Your task to perform on an android device: Do I have any events tomorrow? Image 0: 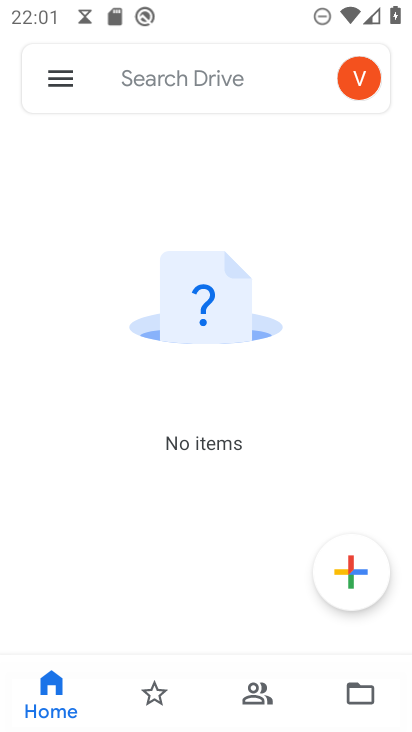
Step 0: press home button
Your task to perform on an android device: Do I have any events tomorrow? Image 1: 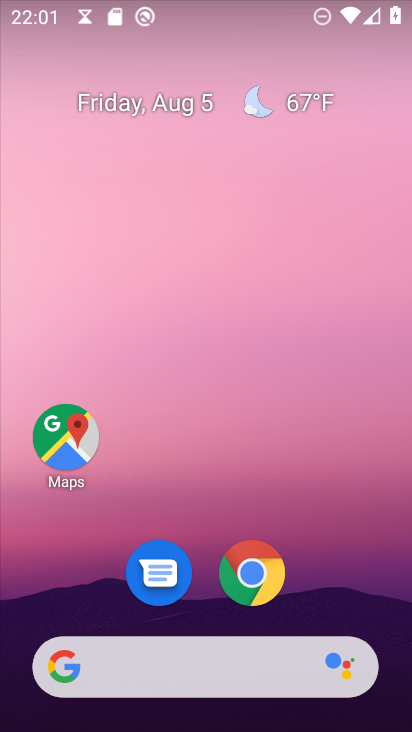
Step 1: drag from (162, 694) to (194, 122)
Your task to perform on an android device: Do I have any events tomorrow? Image 2: 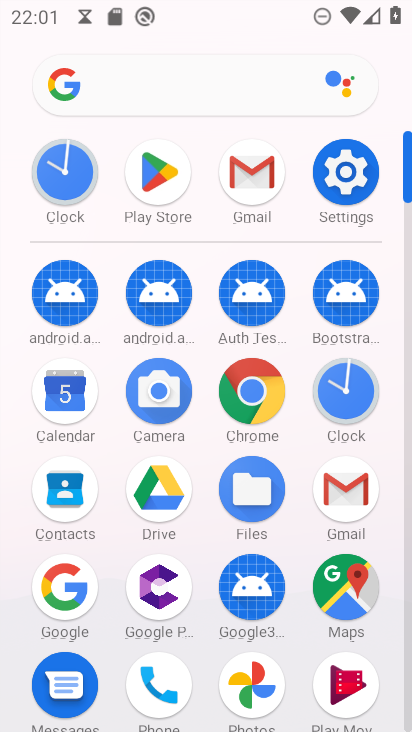
Step 2: click (65, 392)
Your task to perform on an android device: Do I have any events tomorrow? Image 3: 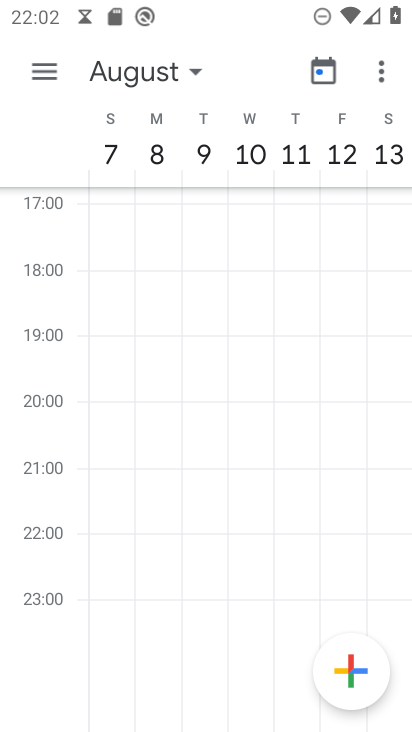
Step 3: click (326, 68)
Your task to perform on an android device: Do I have any events tomorrow? Image 4: 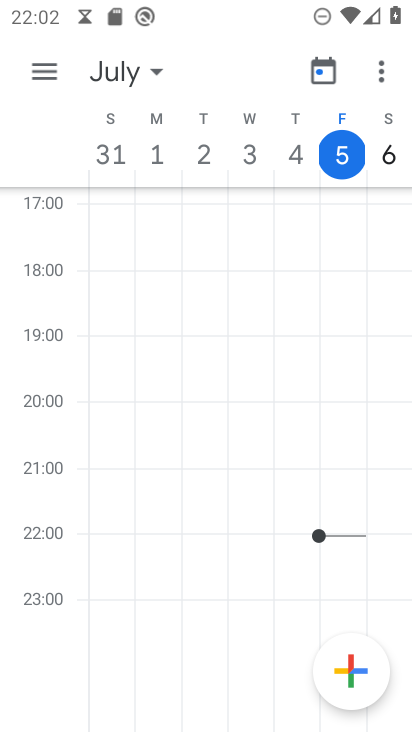
Step 4: click (323, 77)
Your task to perform on an android device: Do I have any events tomorrow? Image 5: 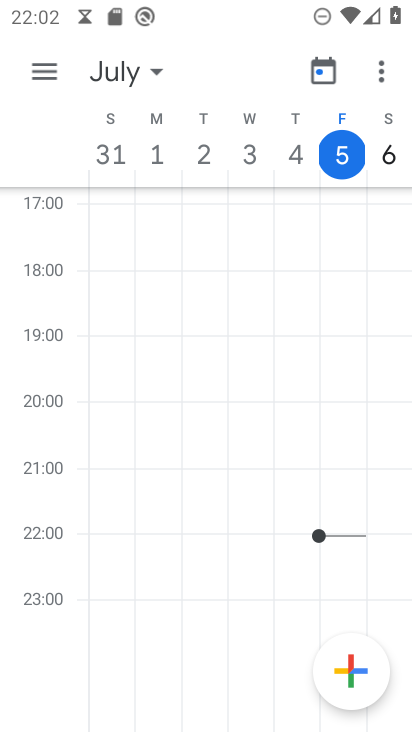
Step 5: click (158, 74)
Your task to perform on an android device: Do I have any events tomorrow? Image 6: 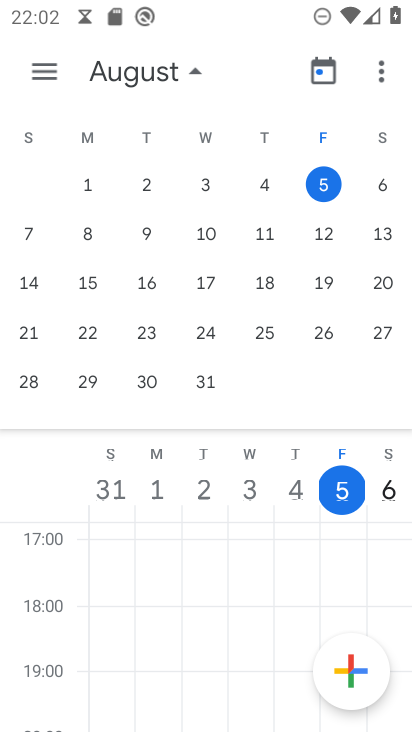
Step 6: click (385, 184)
Your task to perform on an android device: Do I have any events tomorrow? Image 7: 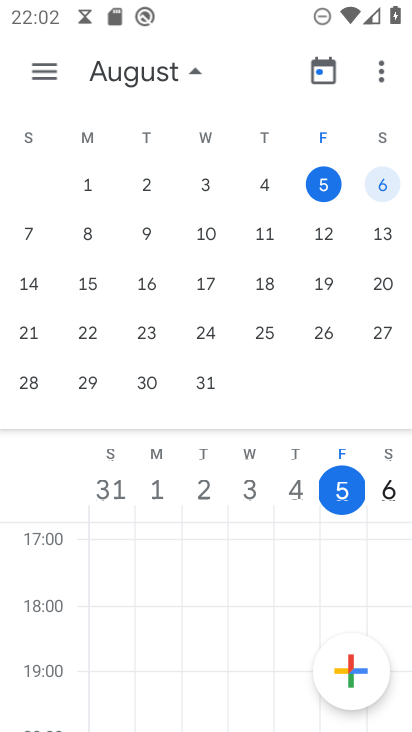
Step 7: click (46, 76)
Your task to perform on an android device: Do I have any events tomorrow? Image 8: 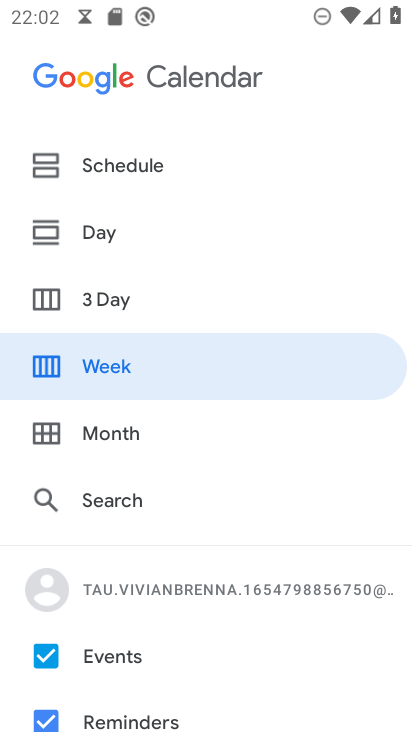
Step 8: click (111, 348)
Your task to perform on an android device: Do I have any events tomorrow? Image 9: 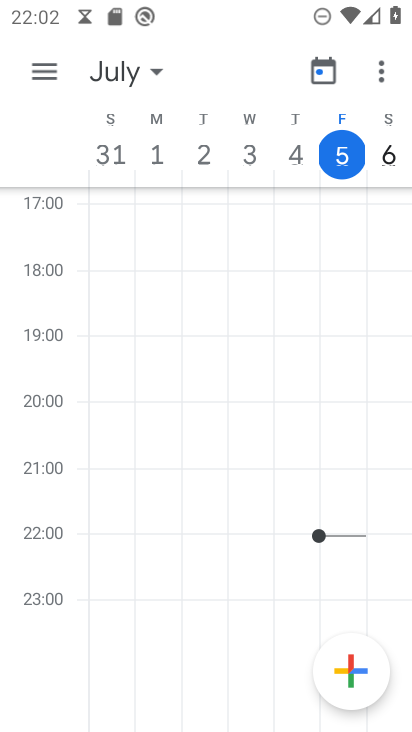
Step 9: task complete